Your task to perform on an android device: turn off data saver in the chrome app Image 0: 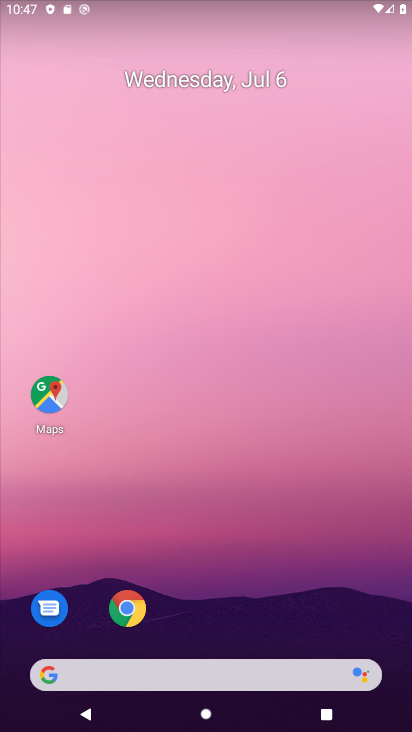
Step 0: click (150, 401)
Your task to perform on an android device: turn off data saver in the chrome app Image 1: 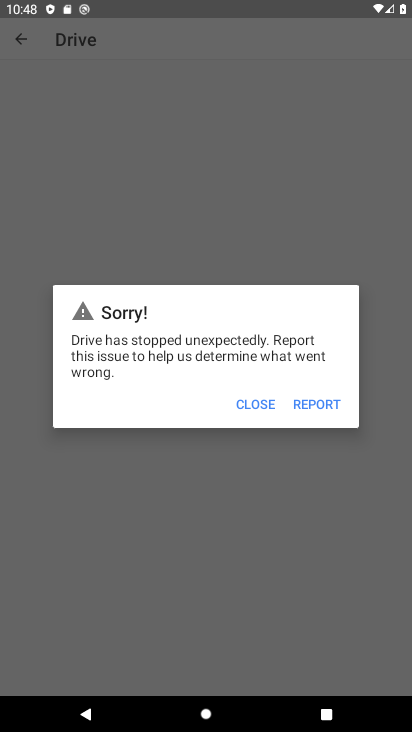
Step 1: click (264, 408)
Your task to perform on an android device: turn off data saver in the chrome app Image 2: 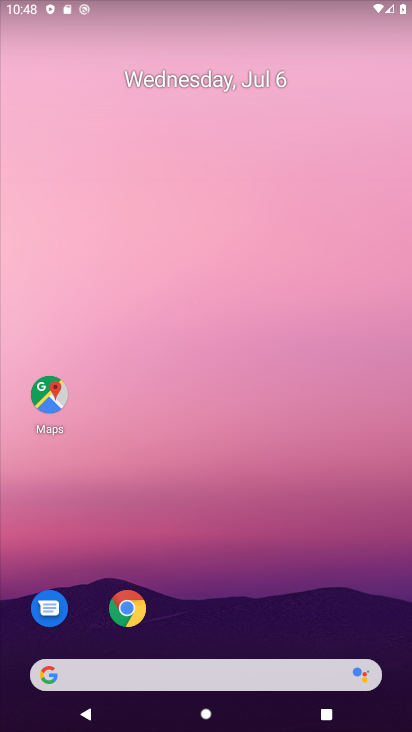
Step 2: press home button
Your task to perform on an android device: turn off data saver in the chrome app Image 3: 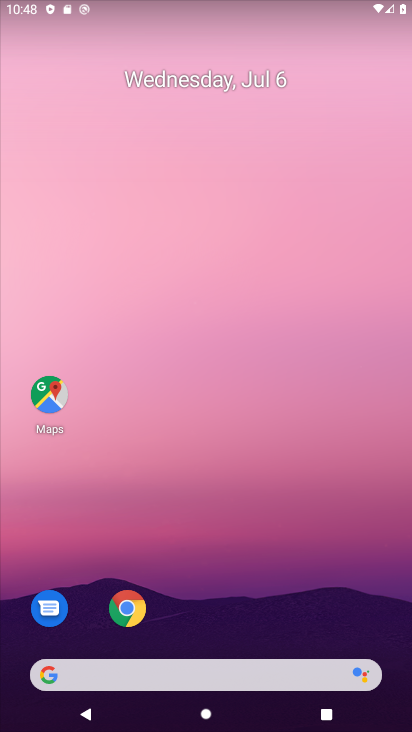
Step 3: drag from (182, 655) to (92, 49)
Your task to perform on an android device: turn off data saver in the chrome app Image 4: 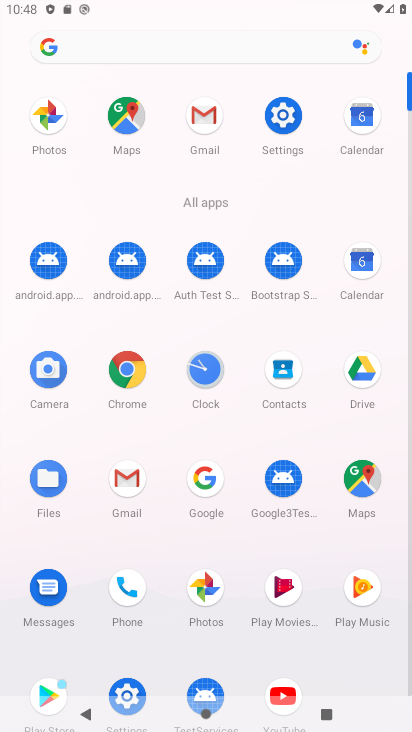
Step 4: click (282, 116)
Your task to perform on an android device: turn off data saver in the chrome app Image 5: 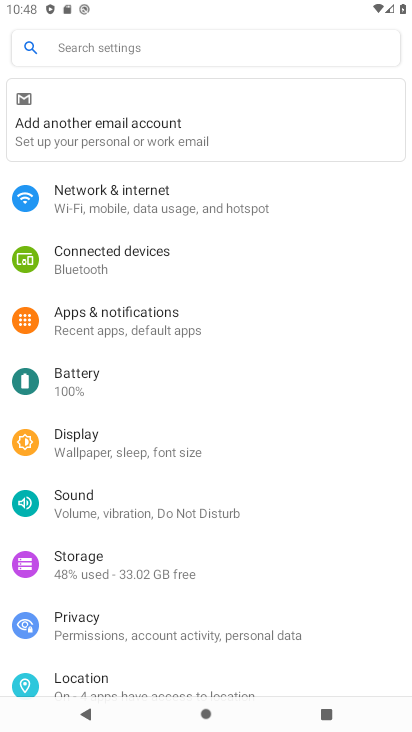
Step 5: press home button
Your task to perform on an android device: turn off data saver in the chrome app Image 6: 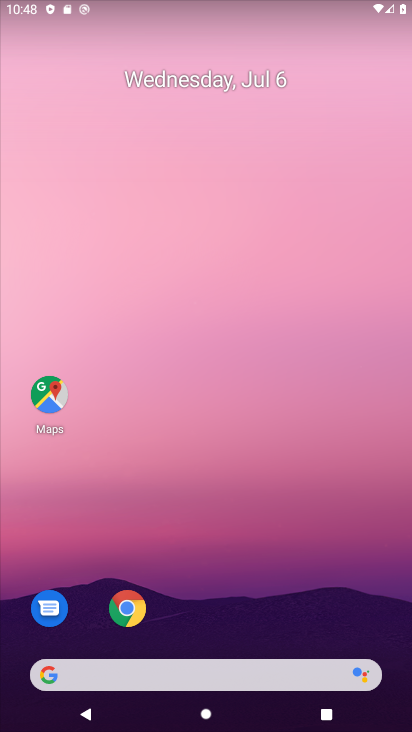
Step 6: click (134, 597)
Your task to perform on an android device: turn off data saver in the chrome app Image 7: 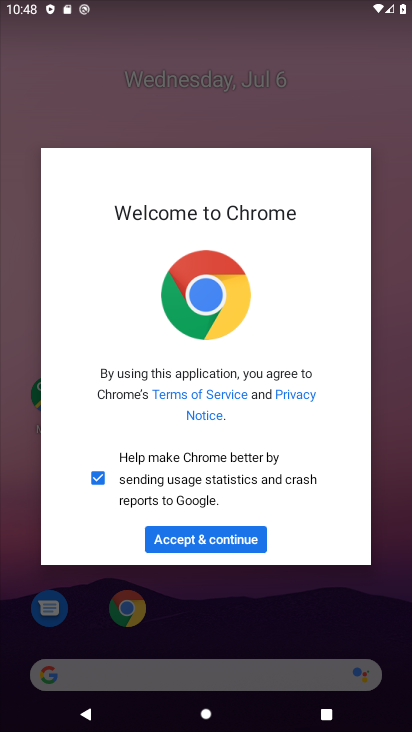
Step 7: click (196, 541)
Your task to perform on an android device: turn off data saver in the chrome app Image 8: 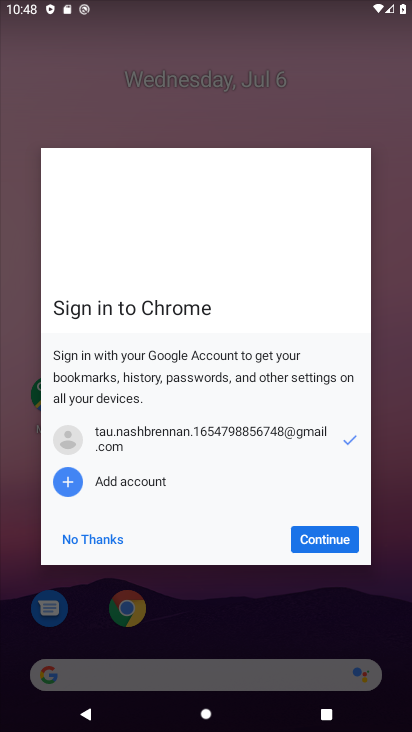
Step 8: click (117, 532)
Your task to perform on an android device: turn off data saver in the chrome app Image 9: 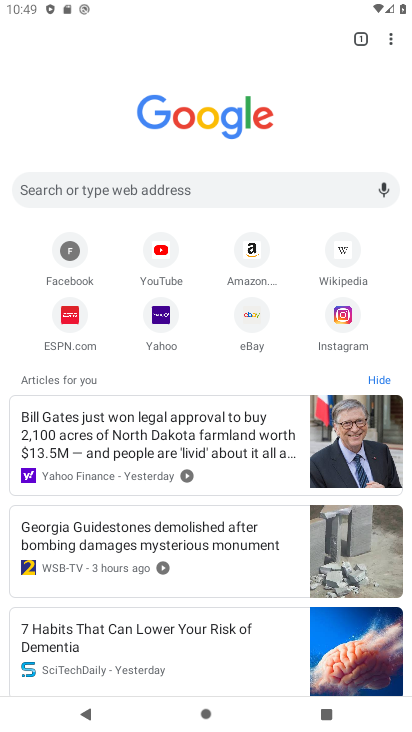
Step 9: click (389, 30)
Your task to perform on an android device: turn off data saver in the chrome app Image 10: 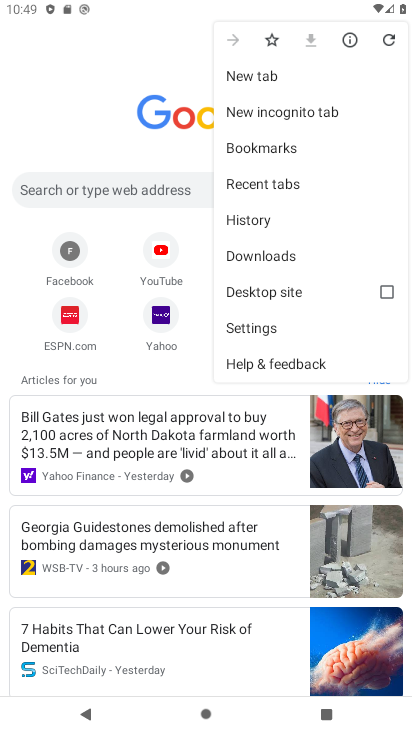
Step 10: click (284, 319)
Your task to perform on an android device: turn off data saver in the chrome app Image 11: 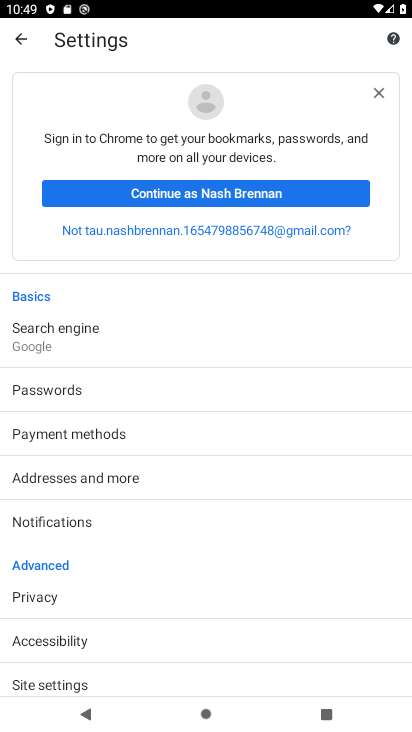
Step 11: drag from (188, 530) to (171, 155)
Your task to perform on an android device: turn off data saver in the chrome app Image 12: 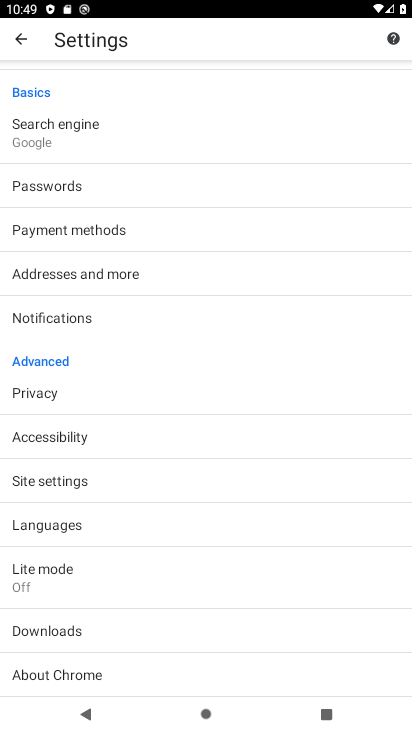
Step 12: click (80, 584)
Your task to perform on an android device: turn off data saver in the chrome app Image 13: 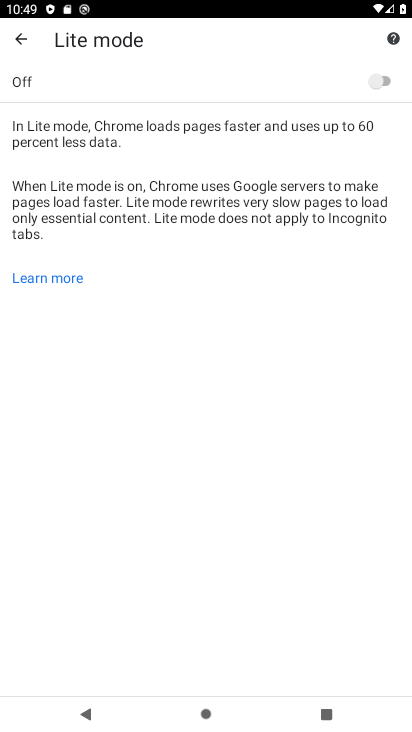
Step 13: task complete